Your task to perform on an android device: Open Google Chrome and open the bookmarks view Image 0: 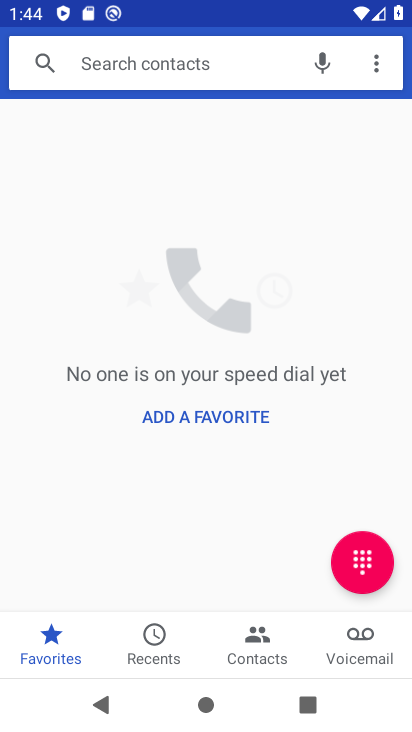
Step 0: press back button
Your task to perform on an android device: Open Google Chrome and open the bookmarks view Image 1: 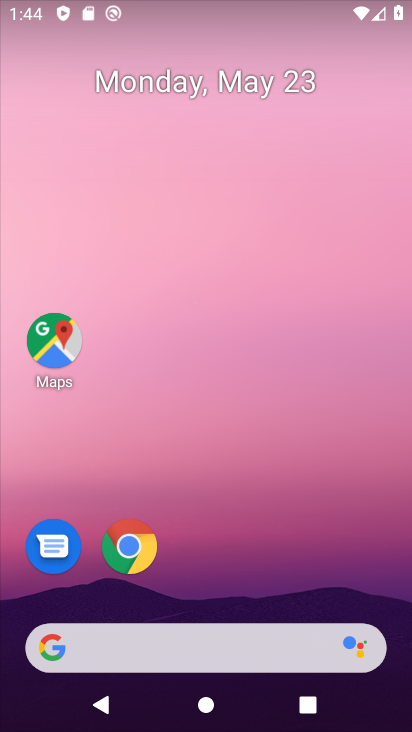
Step 1: click (113, 532)
Your task to perform on an android device: Open Google Chrome and open the bookmarks view Image 2: 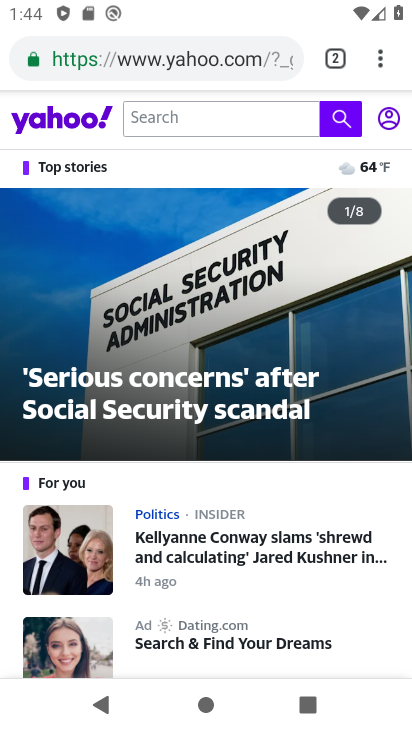
Step 2: task complete